Your task to perform on an android device: star an email in the gmail app Image 0: 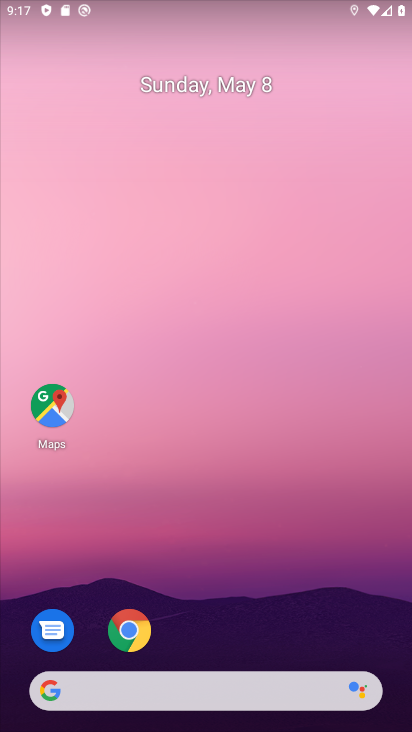
Step 0: drag from (205, 666) to (312, 34)
Your task to perform on an android device: star an email in the gmail app Image 1: 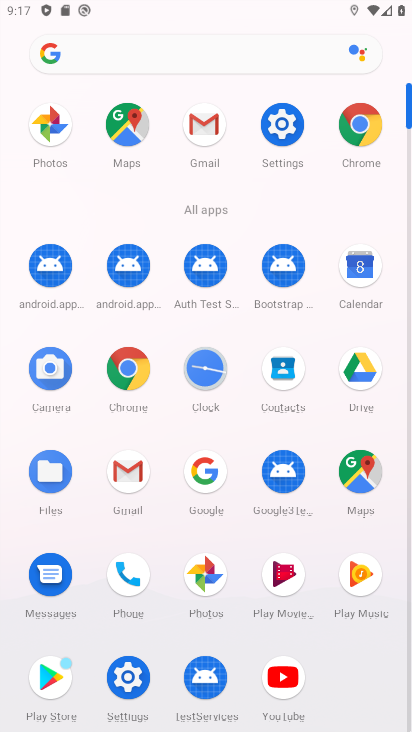
Step 1: click (131, 495)
Your task to perform on an android device: star an email in the gmail app Image 2: 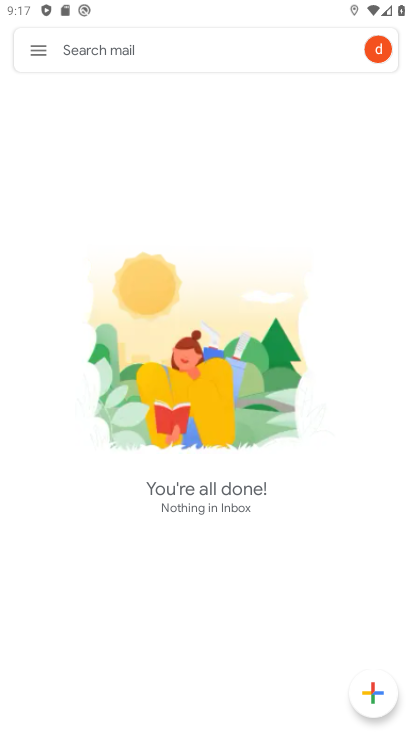
Step 2: click (45, 47)
Your task to perform on an android device: star an email in the gmail app Image 3: 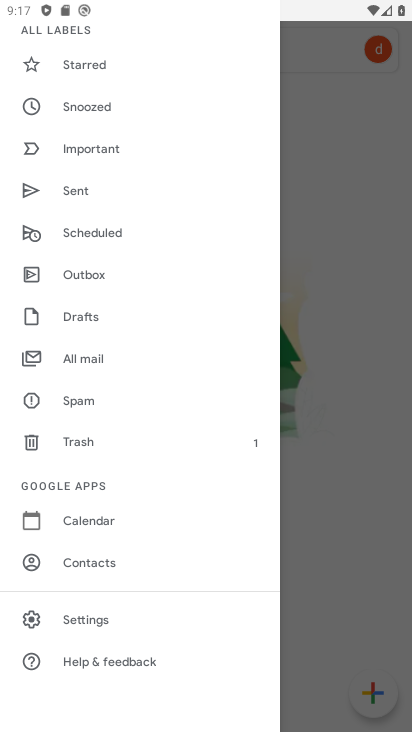
Step 3: click (158, 359)
Your task to perform on an android device: star an email in the gmail app Image 4: 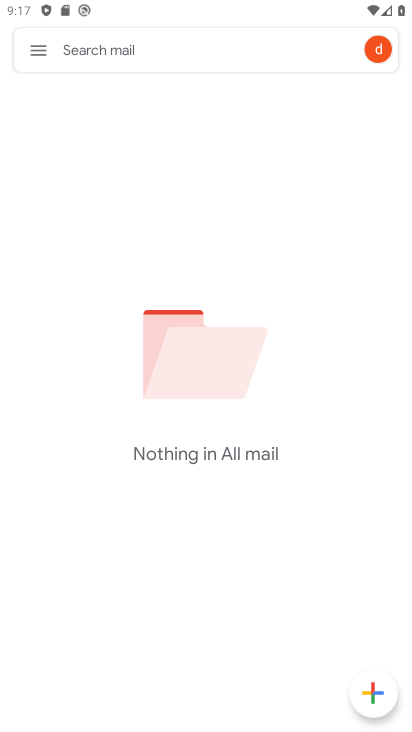
Step 4: task complete